Your task to perform on an android device: refresh tabs in the chrome app Image 0: 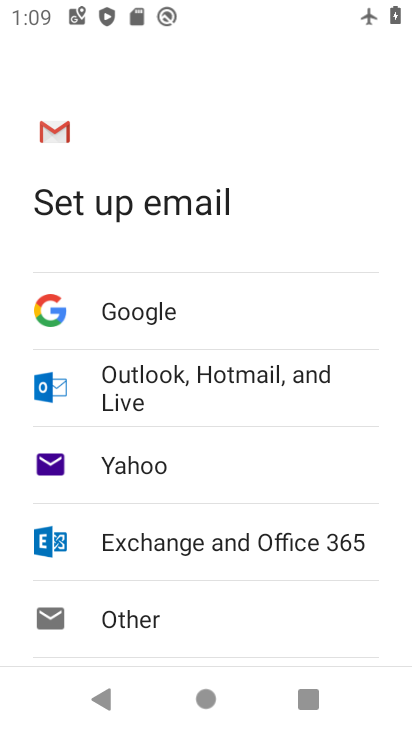
Step 0: press home button
Your task to perform on an android device: refresh tabs in the chrome app Image 1: 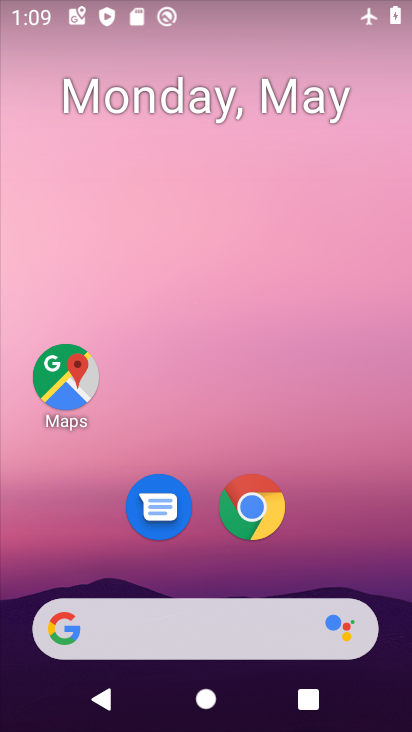
Step 1: click (251, 507)
Your task to perform on an android device: refresh tabs in the chrome app Image 2: 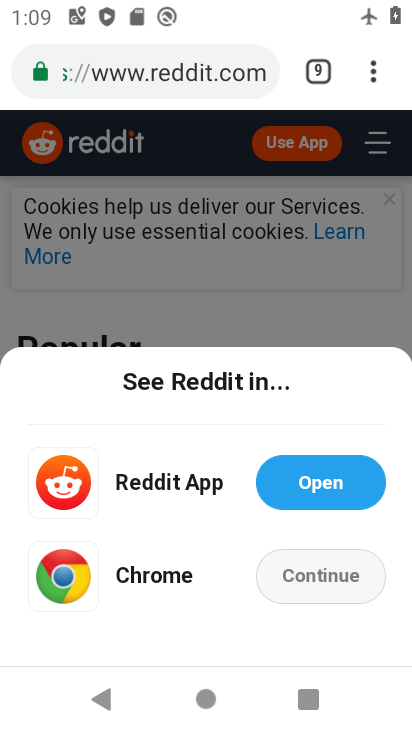
Step 2: click (374, 81)
Your task to perform on an android device: refresh tabs in the chrome app Image 3: 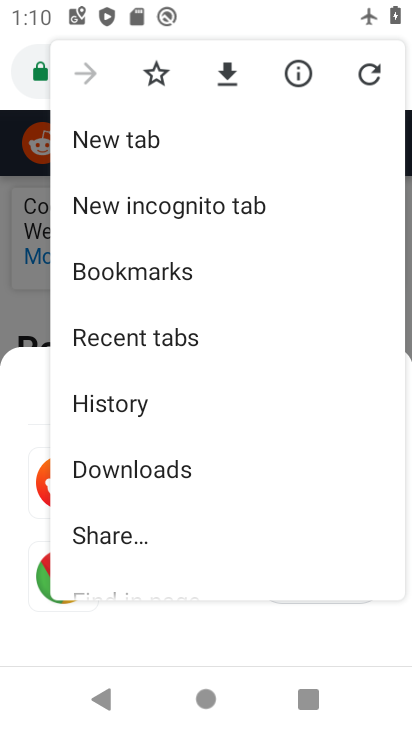
Step 3: click (366, 71)
Your task to perform on an android device: refresh tabs in the chrome app Image 4: 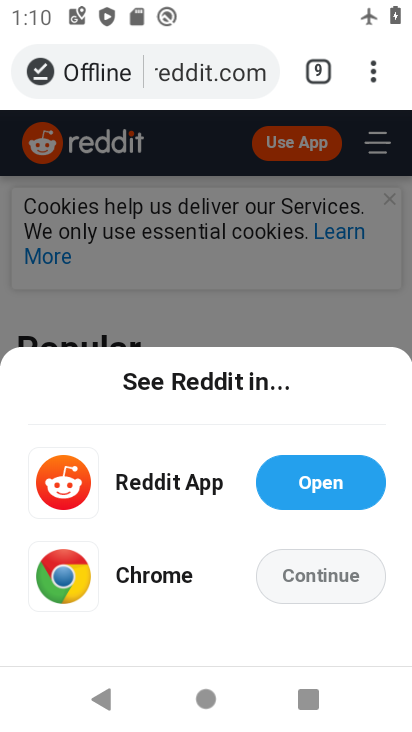
Step 4: task complete